Your task to perform on an android device: Go to network settings Image 0: 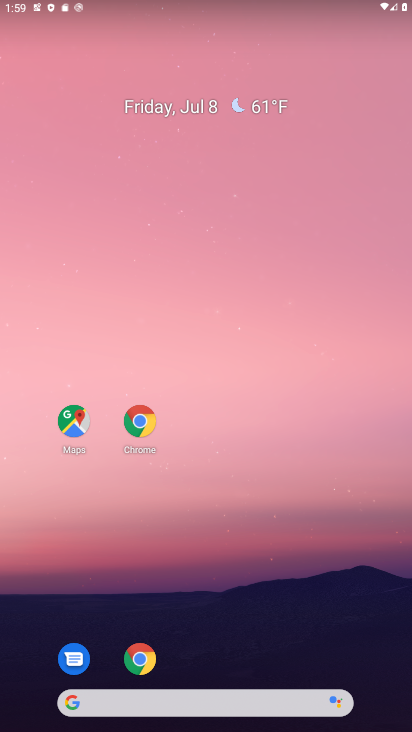
Step 0: drag from (246, 695) to (185, 200)
Your task to perform on an android device: Go to network settings Image 1: 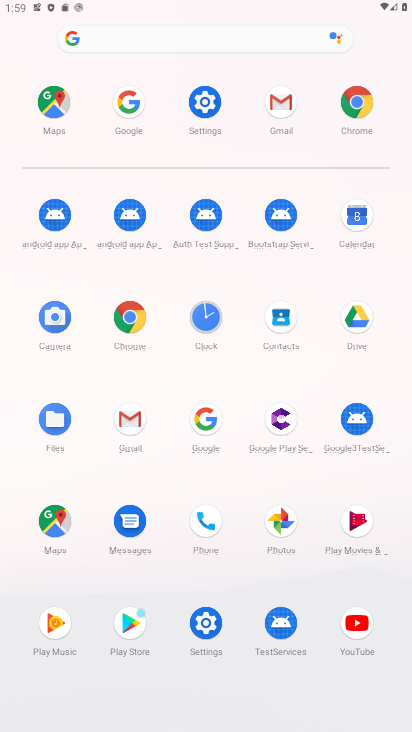
Step 1: click (209, 120)
Your task to perform on an android device: Go to network settings Image 2: 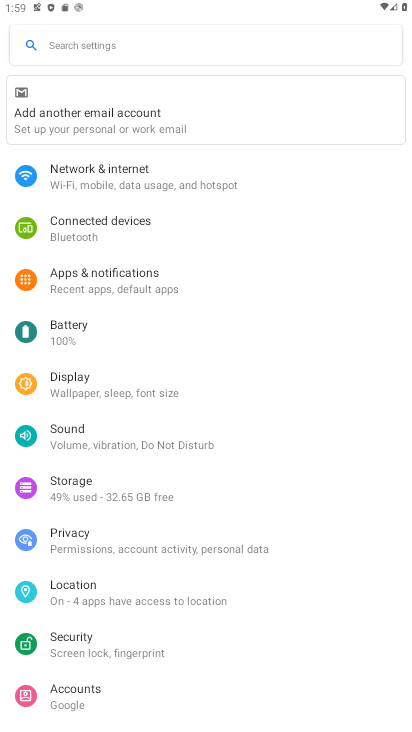
Step 2: drag from (204, 131) to (196, 401)
Your task to perform on an android device: Go to network settings Image 3: 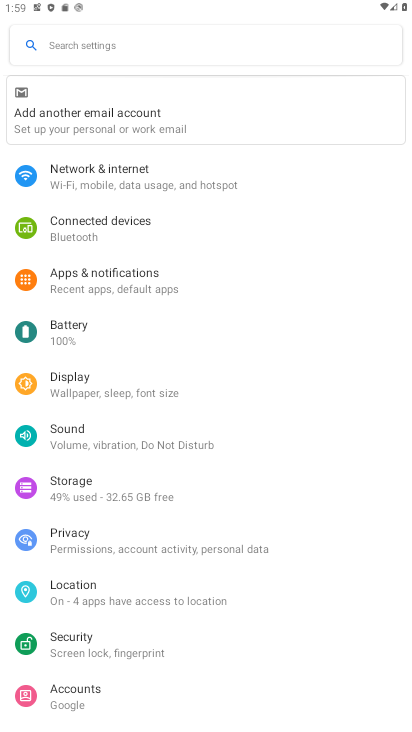
Step 3: click (76, 169)
Your task to perform on an android device: Go to network settings Image 4: 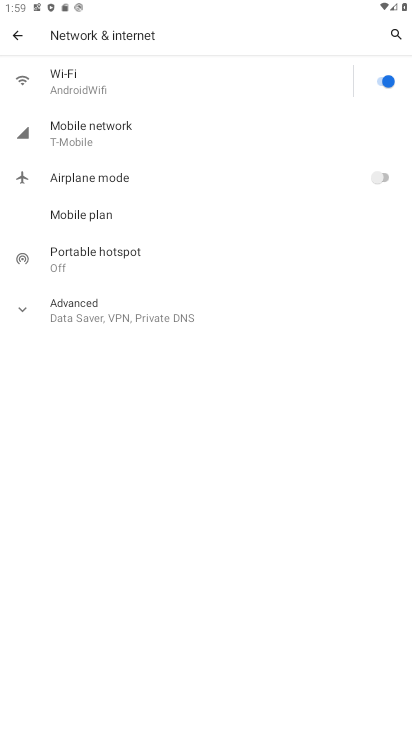
Step 4: click (86, 143)
Your task to perform on an android device: Go to network settings Image 5: 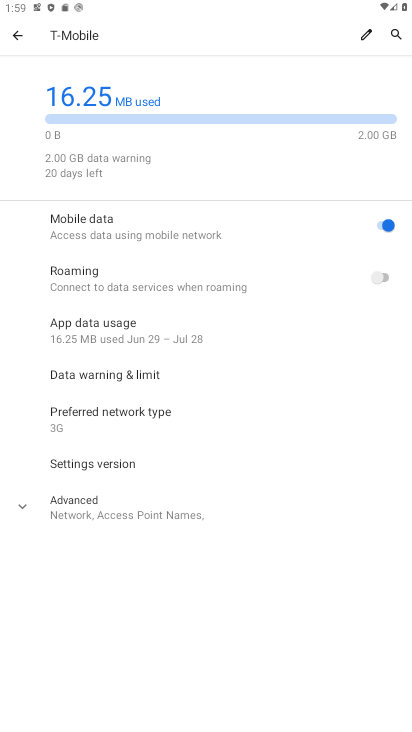
Step 5: task complete